Your task to perform on an android device: open wifi settings Image 0: 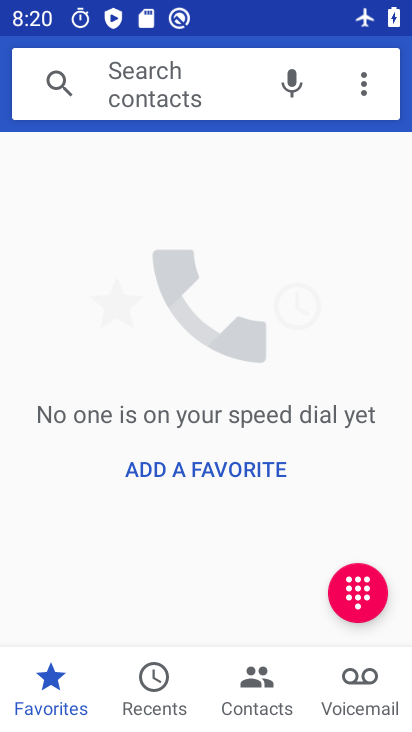
Step 0: press back button
Your task to perform on an android device: open wifi settings Image 1: 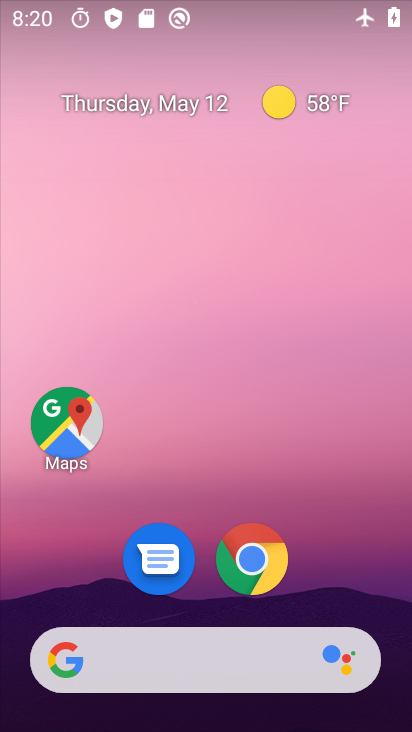
Step 1: drag from (342, 578) to (247, 35)
Your task to perform on an android device: open wifi settings Image 2: 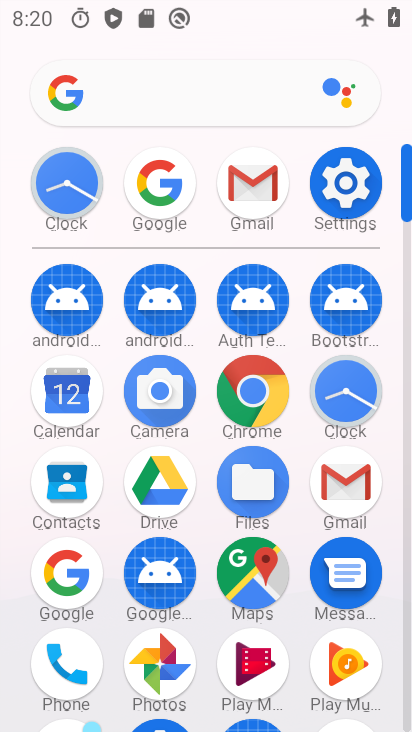
Step 2: click (344, 184)
Your task to perform on an android device: open wifi settings Image 3: 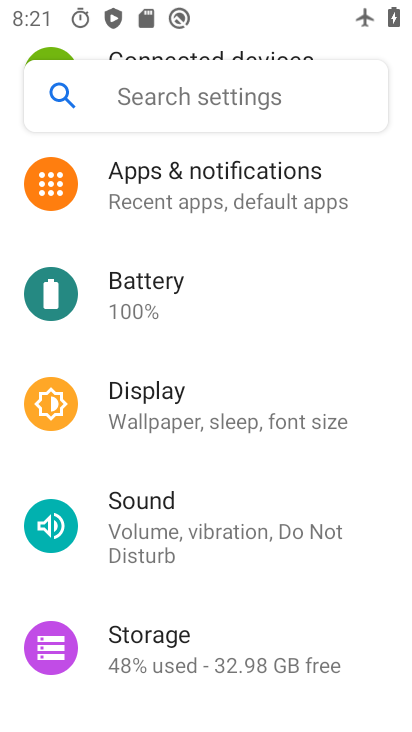
Step 3: drag from (243, 218) to (244, 351)
Your task to perform on an android device: open wifi settings Image 4: 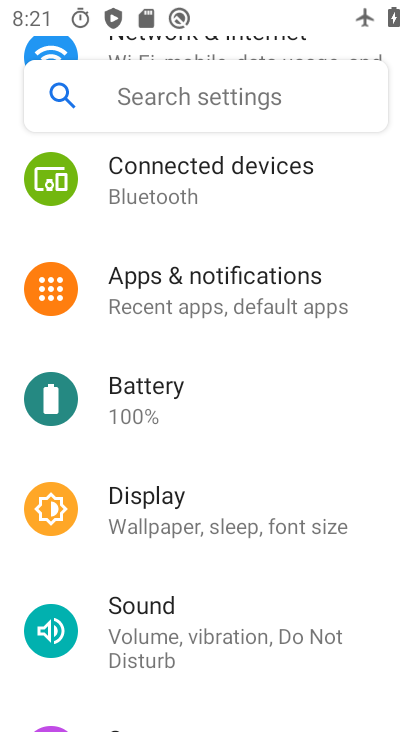
Step 4: drag from (231, 216) to (261, 383)
Your task to perform on an android device: open wifi settings Image 5: 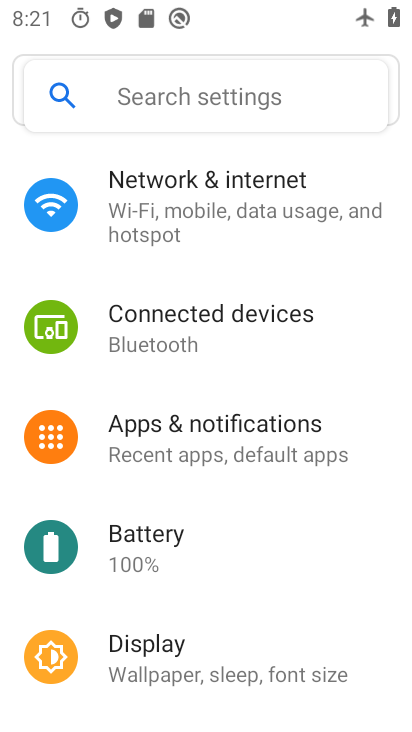
Step 5: click (231, 194)
Your task to perform on an android device: open wifi settings Image 6: 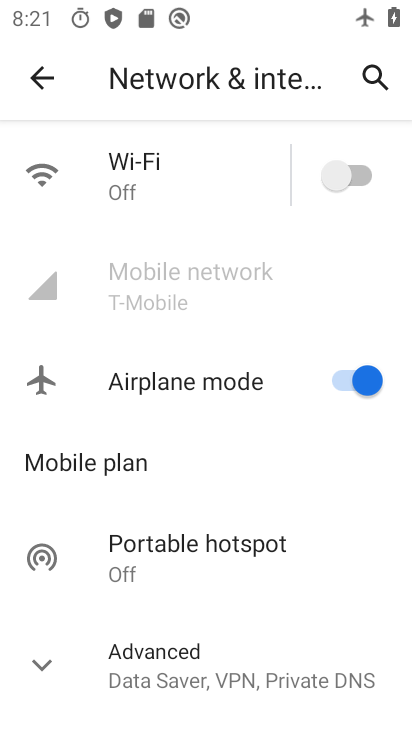
Step 6: click (137, 166)
Your task to perform on an android device: open wifi settings Image 7: 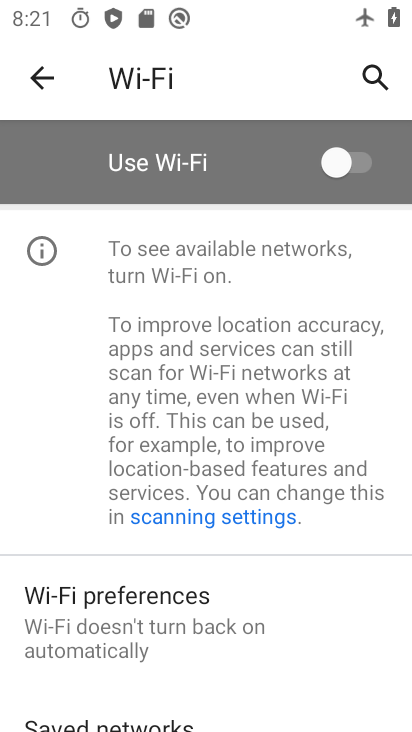
Step 7: task complete